Your task to perform on an android device: open wifi settings Image 0: 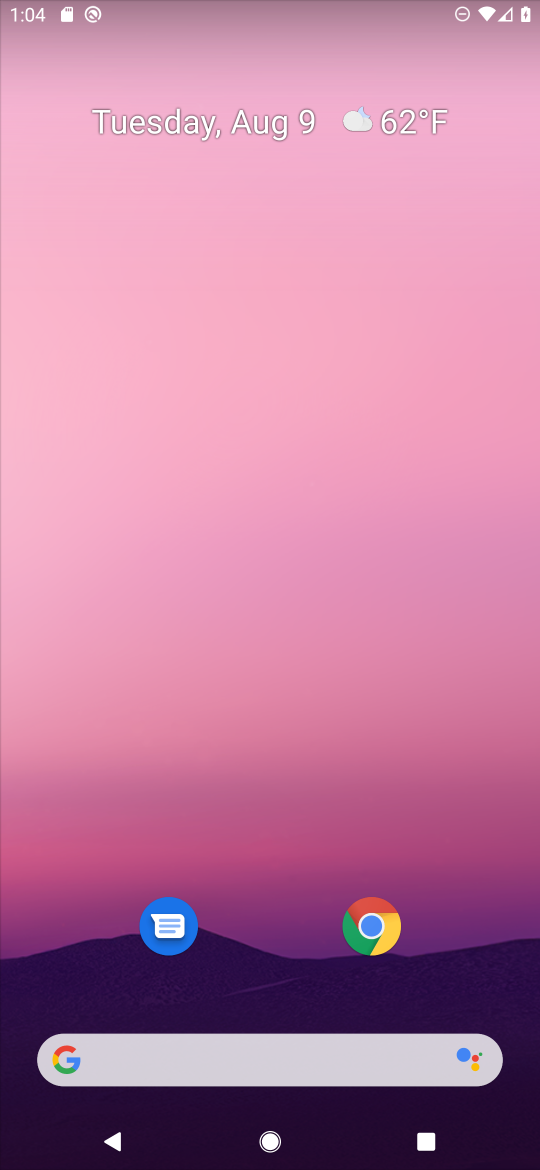
Step 0: drag from (454, 12) to (212, 677)
Your task to perform on an android device: open wifi settings Image 1: 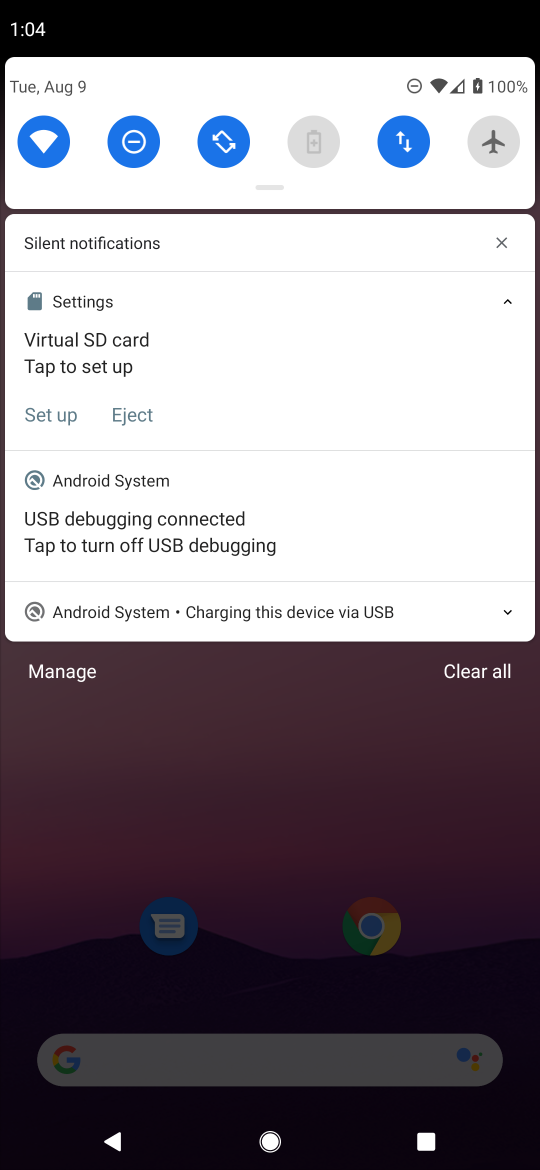
Step 1: click (54, 152)
Your task to perform on an android device: open wifi settings Image 2: 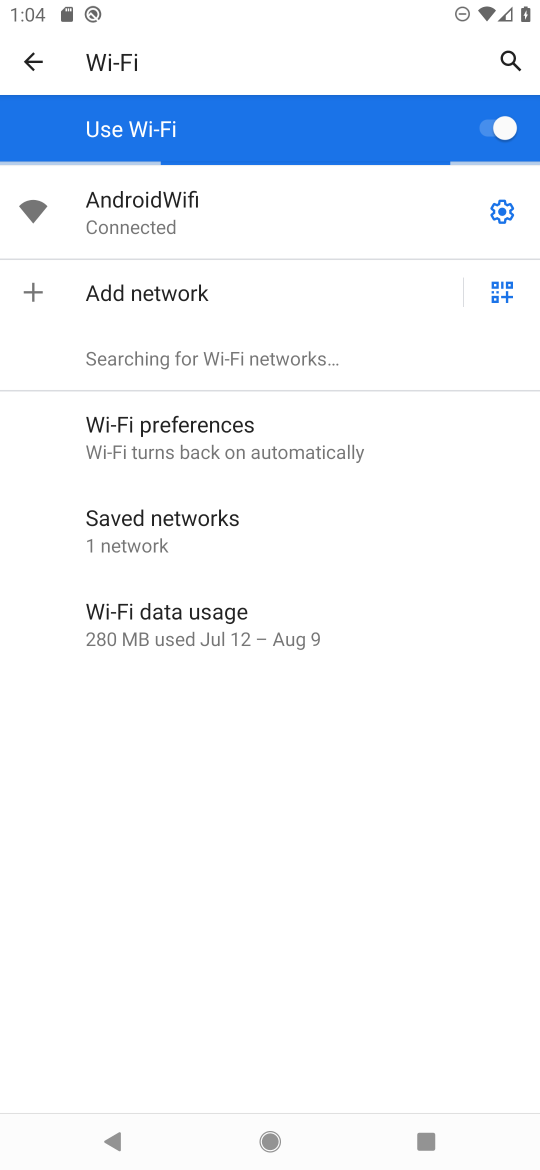
Step 2: click (498, 214)
Your task to perform on an android device: open wifi settings Image 3: 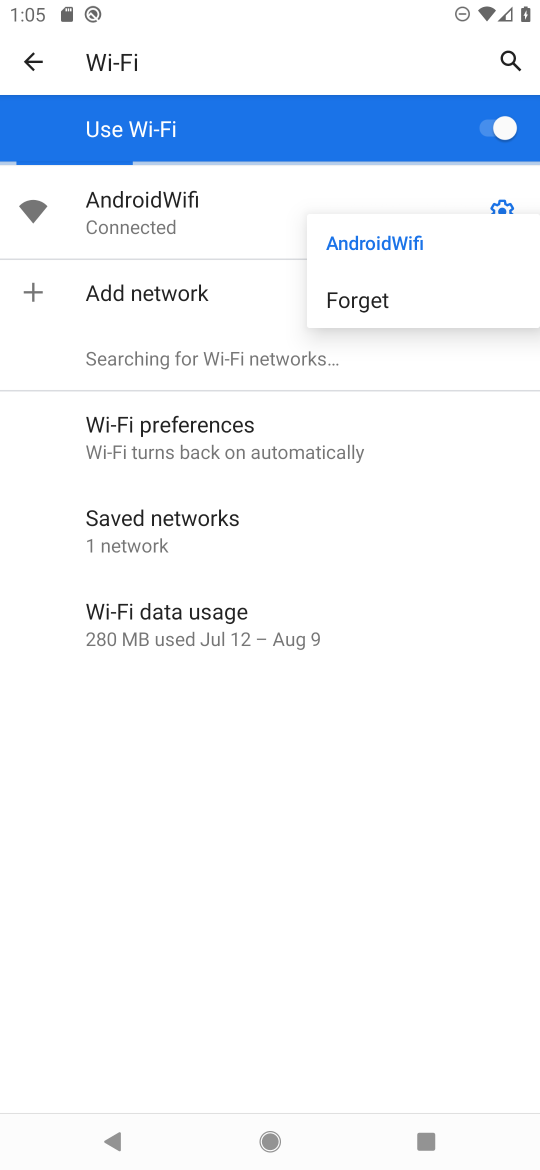
Step 3: task complete